Your task to perform on an android device: Open calendar and show me the second week of next month Image 0: 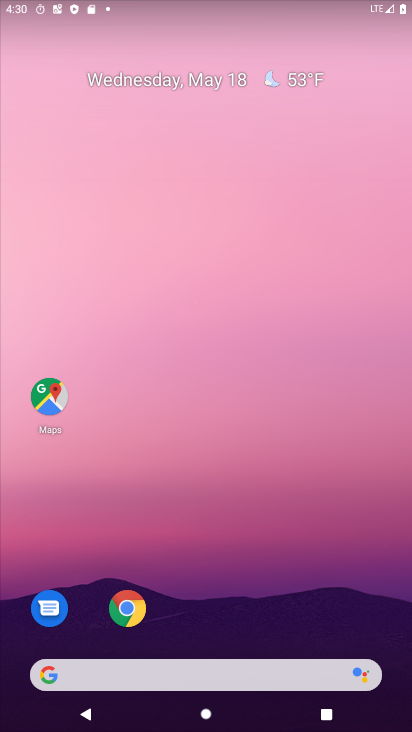
Step 0: drag from (189, 674) to (258, 23)
Your task to perform on an android device: Open calendar and show me the second week of next month Image 1: 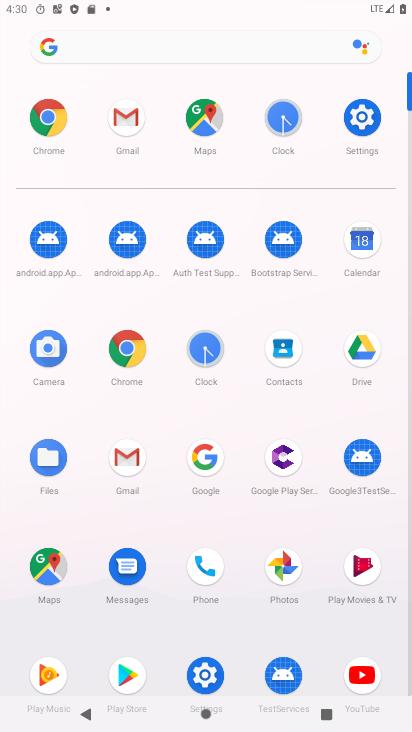
Step 1: click (356, 243)
Your task to perform on an android device: Open calendar and show me the second week of next month Image 2: 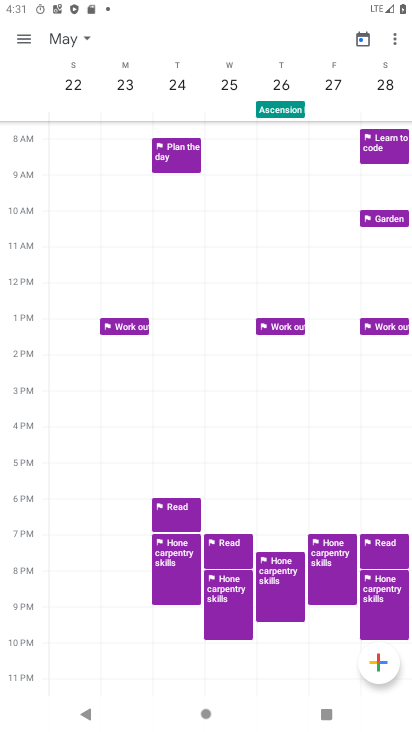
Step 2: click (79, 34)
Your task to perform on an android device: Open calendar and show me the second week of next month Image 3: 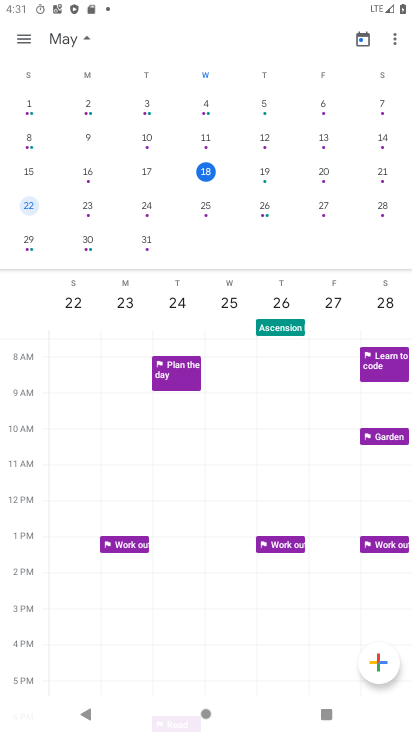
Step 3: drag from (367, 185) to (14, 192)
Your task to perform on an android device: Open calendar and show me the second week of next month Image 4: 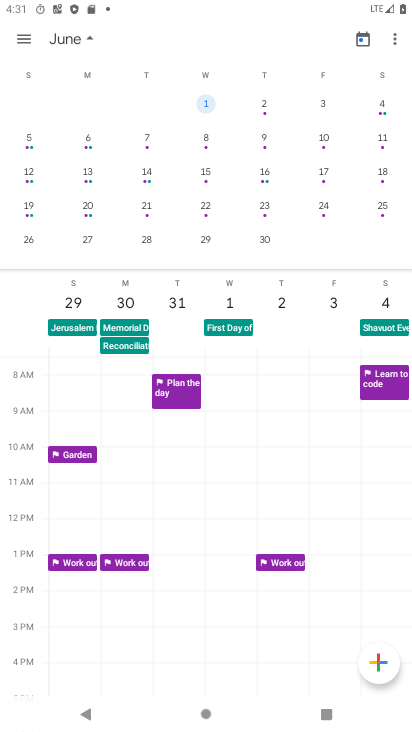
Step 4: click (264, 137)
Your task to perform on an android device: Open calendar and show me the second week of next month Image 5: 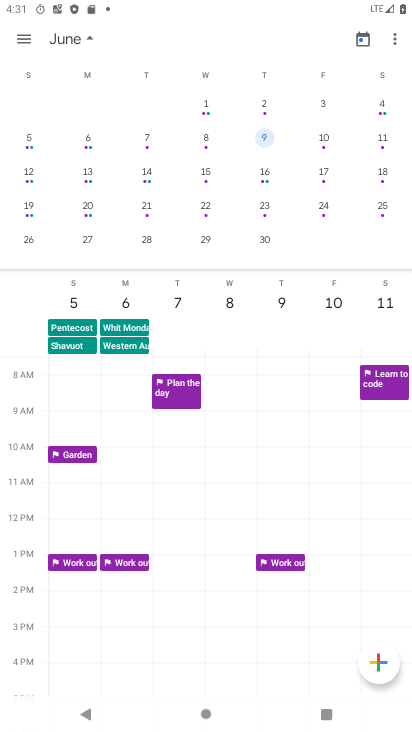
Step 5: task complete